Your task to perform on an android device: Show the shopping cart on ebay. Add "usb-a to usb-b" to the cart on ebay Image 0: 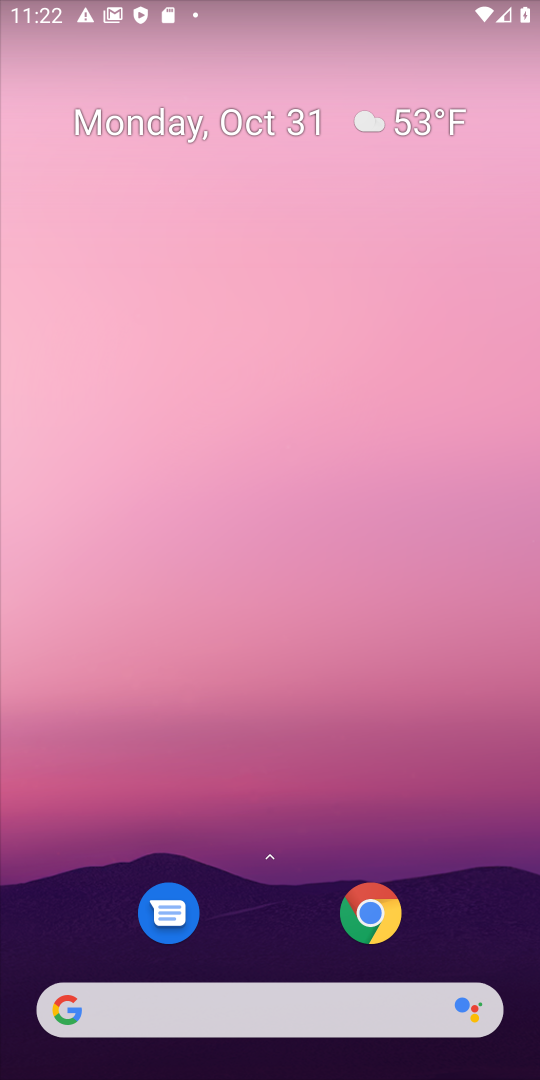
Step 0: click (148, 1020)
Your task to perform on an android device: Show the shopping cart on ebay. Add "usb-a to usb-b" to the cart on ebay Image 1: 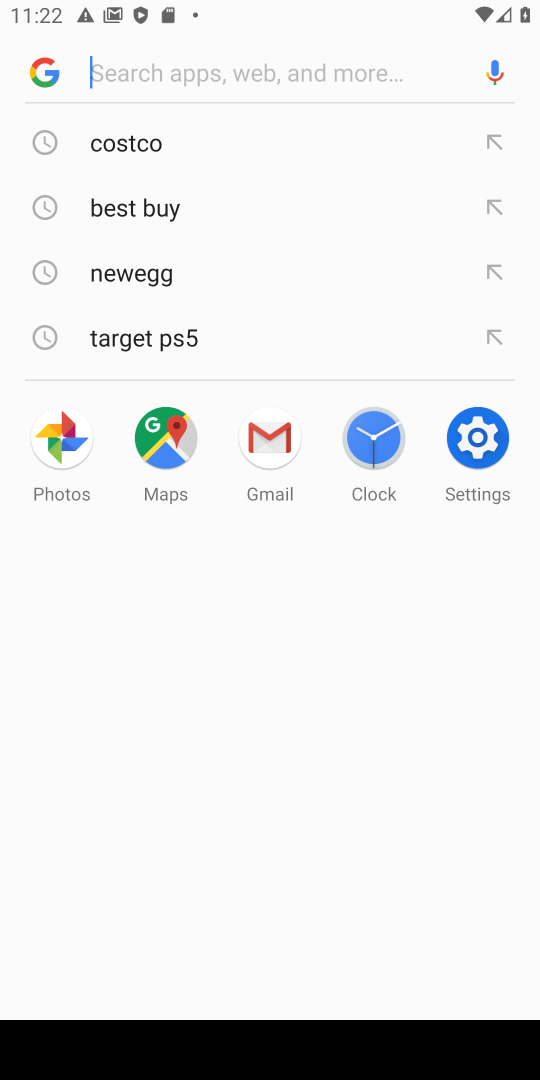
Step 1: type "ebay.com"
Your task to perform on an android device: Show the shopping cart on ebay. Add "usb-a to usb-b" to the cart on ebay Image 2: 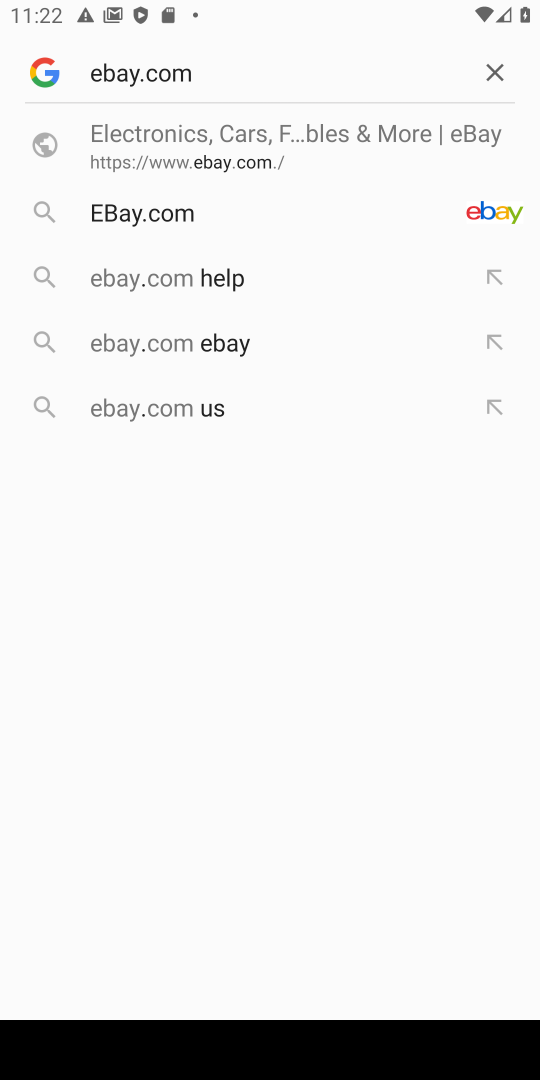
Step 2: click (215, 127)
Your task to perform on an android device: Show the shopping cart on ebay. Add "usb-a to usb-b" to the cart on ebay Image 3: 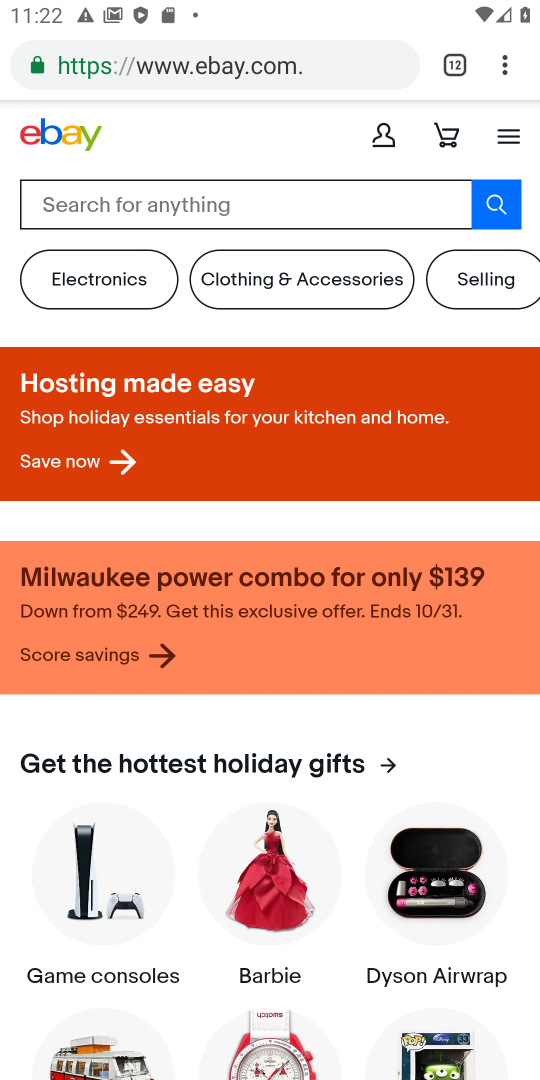
Step 3: click (200, 191)
Your task to perform on an android device: Show the shopping cart on ebay. Add "usb-a to usb-b" to the cart on ebay Image 4: 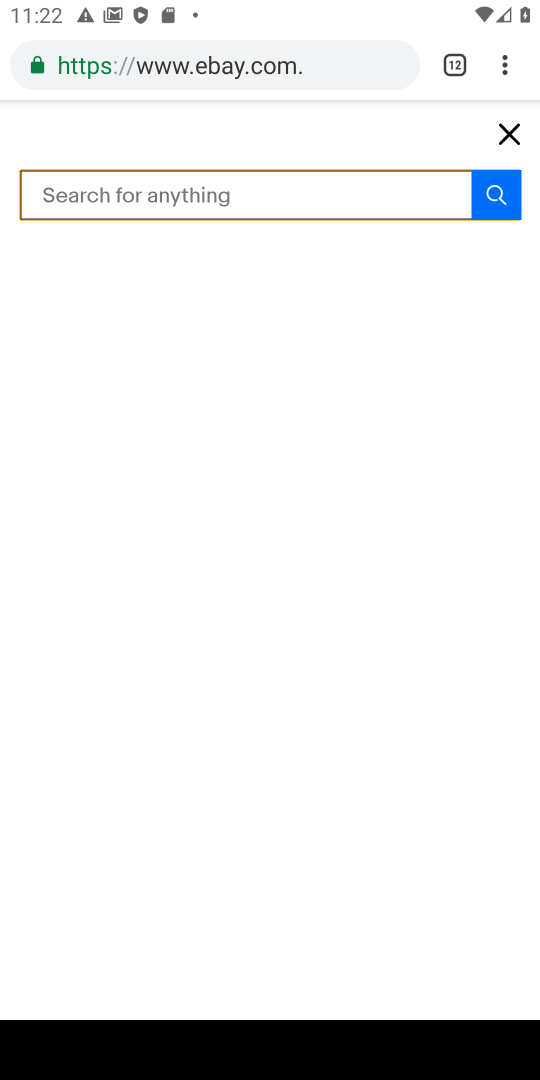
Step 4: type "usb-a to usb-b"
Your task to perform on an android device: Show the shopping cart on ebay. Add "usb-a to usb-b" to the cart on ebay Image 5: 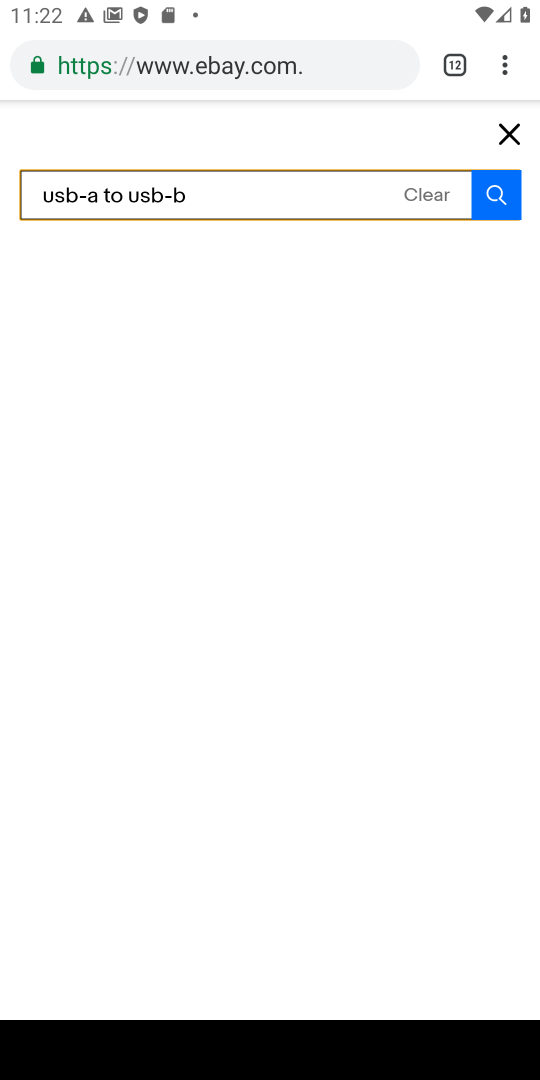
Step 5: click (494, 215)
Your task to perform on an android device: Show the shopping cart on ebay. Add "usb-a to usb-b" to the cart on ebay Image 6: 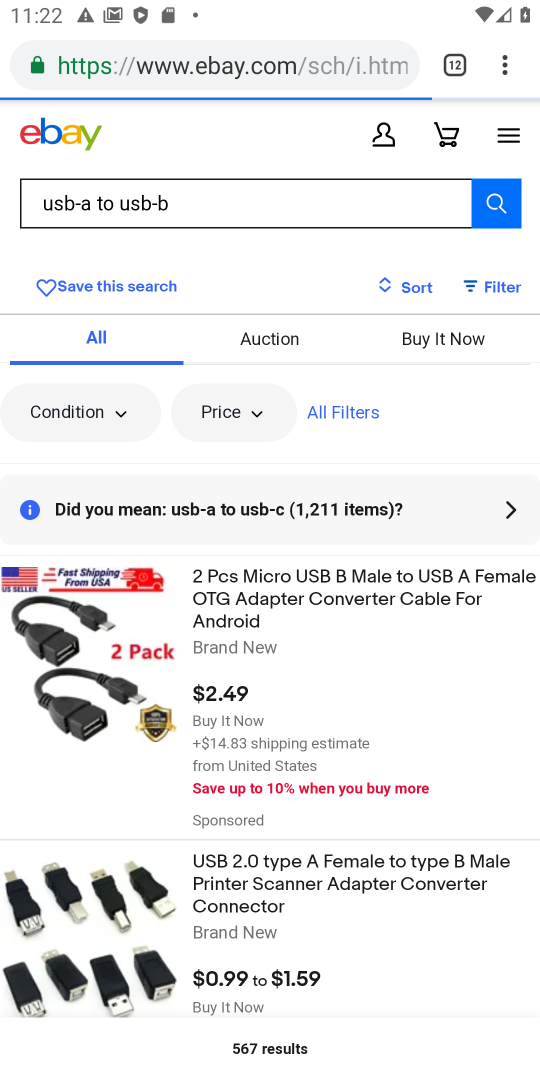
Step 6: click (247, 589)
Your task to perform on an android device: Show the shopping cart on ebay. Add "usb-a to usb-b" to the cart on ebay Image 7: 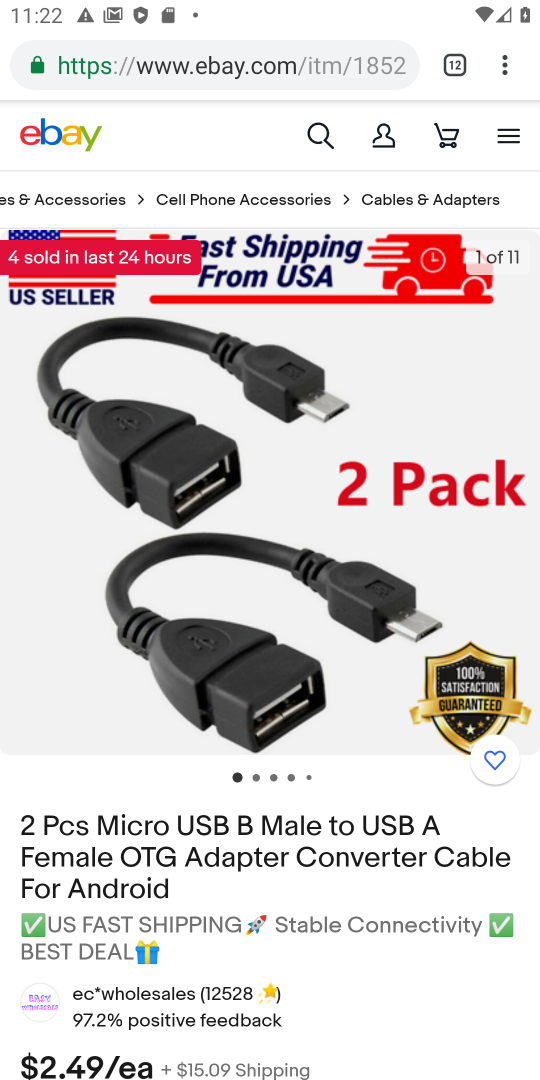
Step 7: drag from (294, 998) to (167, 564)
Your task to perform on an android device: Show the shopping cart on ebay. Add "usb-a to usb-b" to the cart on ebay Image 8: 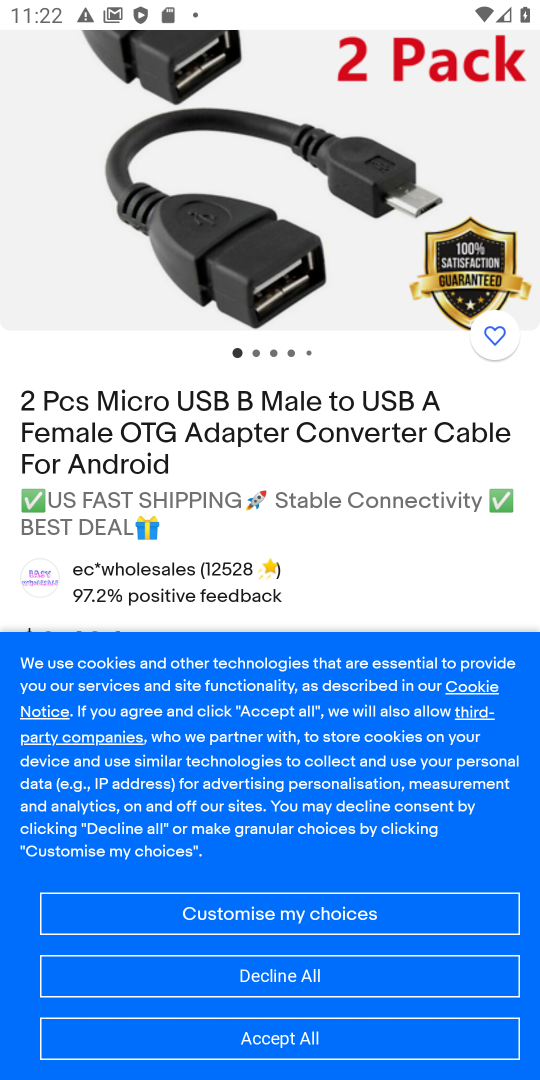
Step 8: click (324, 1059)
Your task to perform on an android device: Show the shopping cart on ebay. Add "usb-a to usb-b" to the cart on ebay Image 9: 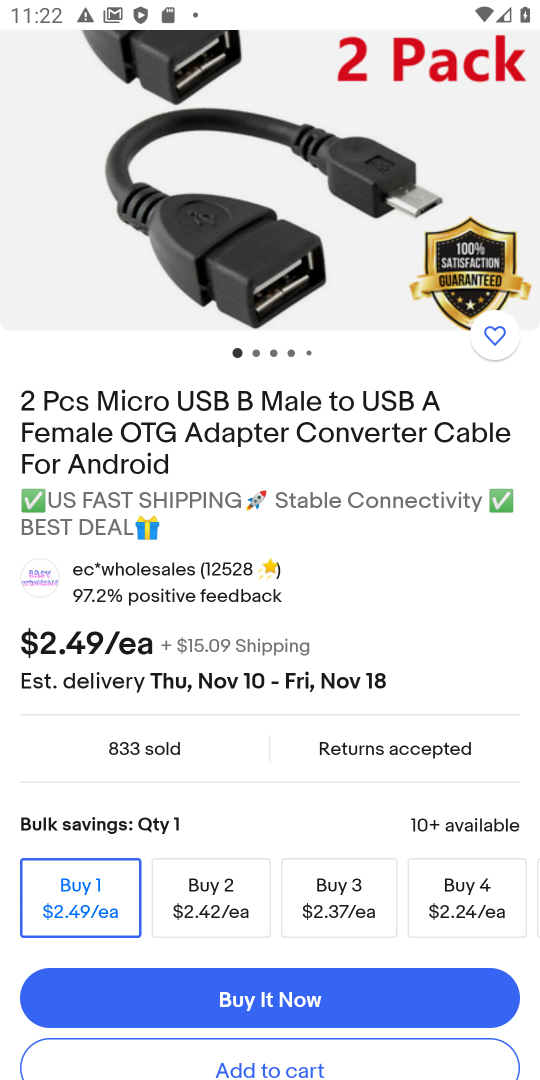
Step 9: click (341, 1060)
Your task to perform on an android device: Show the shopping cart on ebay. Add "usb-a to usb-b" to the cart on ebay Image 10: 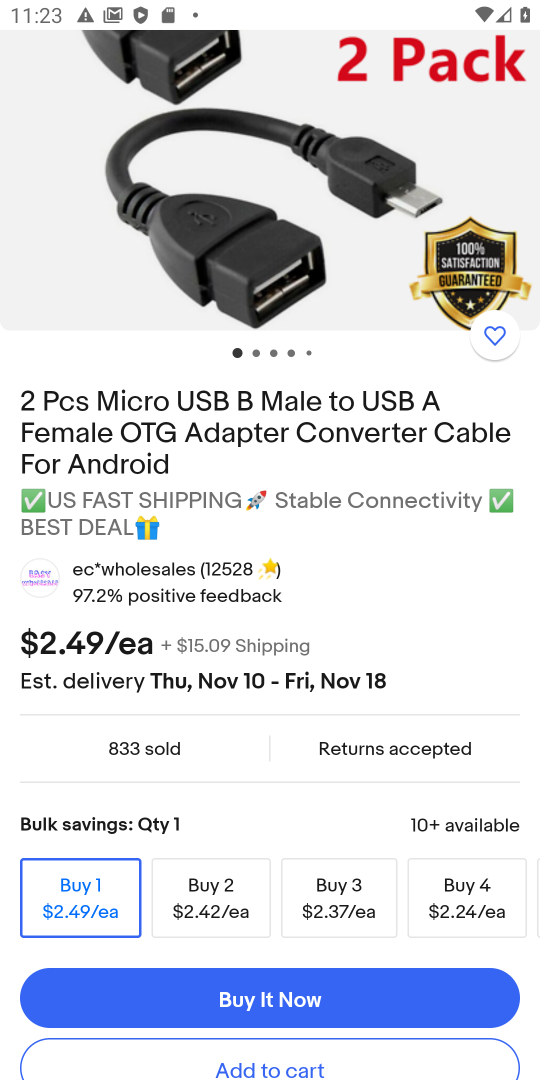
Step 10: task complete